Your task to perform on an android device: star an email in the gmail app Image 0: 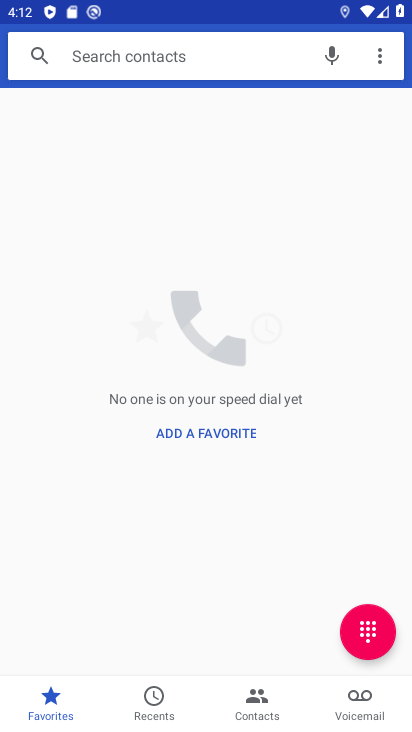
Step 0: press home button
Your task to perform on an android device: star an email in the gmail app Image 1: 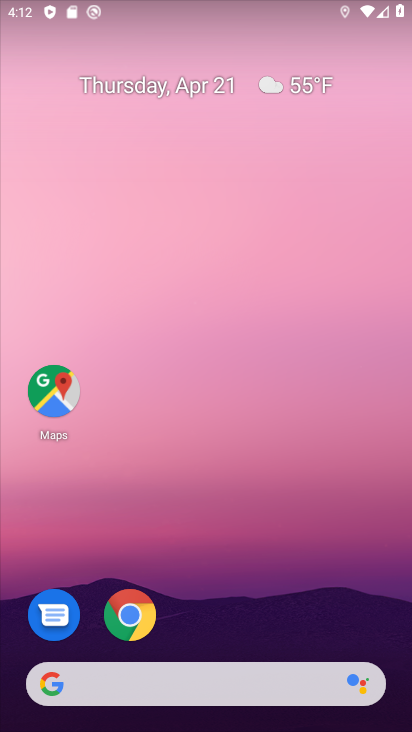
Step 1: drag from (212, 640) to (219, 192)
Your task to perform on an android device: star an email in the gmail app Image 2: 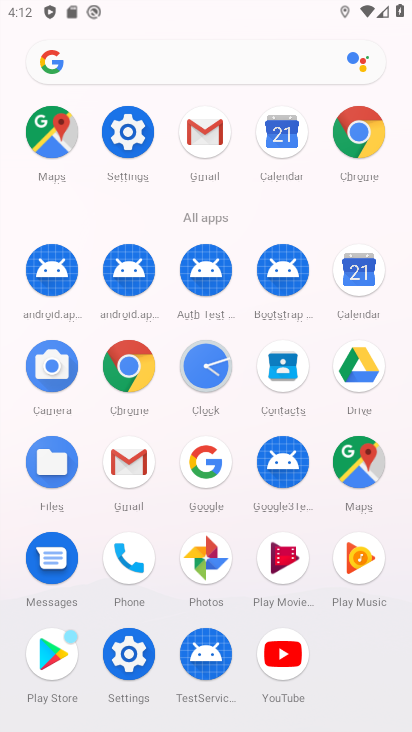
Step 2: click (135, 468)
Your task to perform on an android device: star an email in the gmail app Image 3: 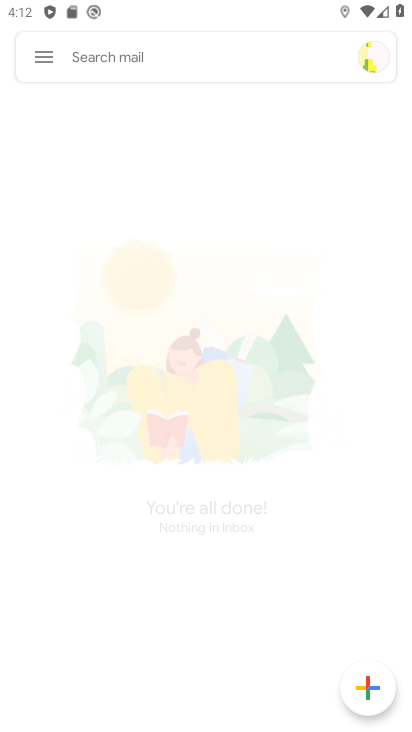
Step 3: click (32, 60)
Your task to perform on an android device: star an email in the gmail app Image 4: 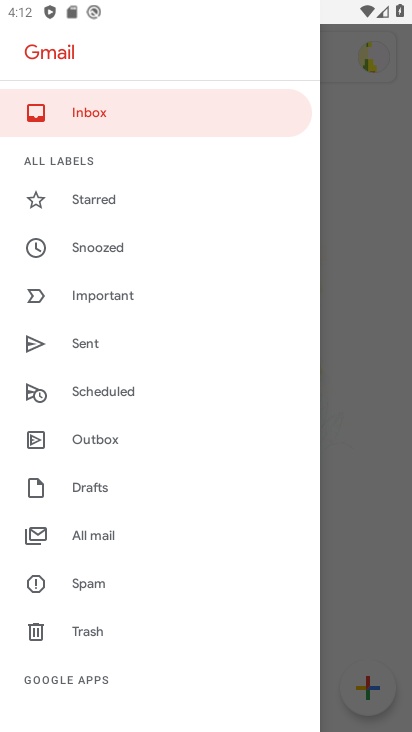
Step 4: drag from (134, 641) to (180, 294)
Your task to perform on an android device: star an email in the gmail app Image 5: 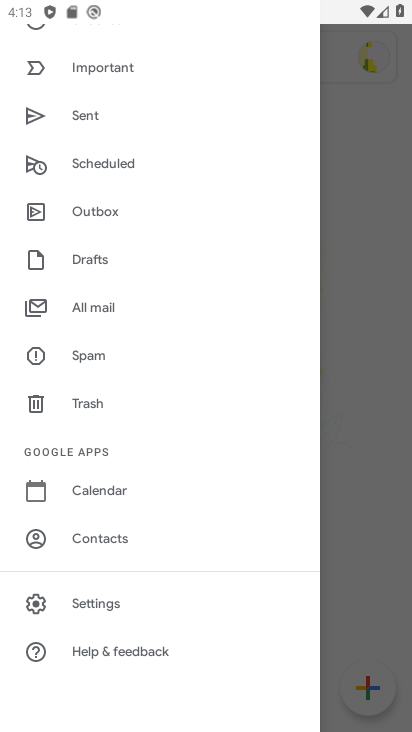
Step 5: click (105, 304)
Your task to perform on an android device: star an email in the gmail app Image 6: 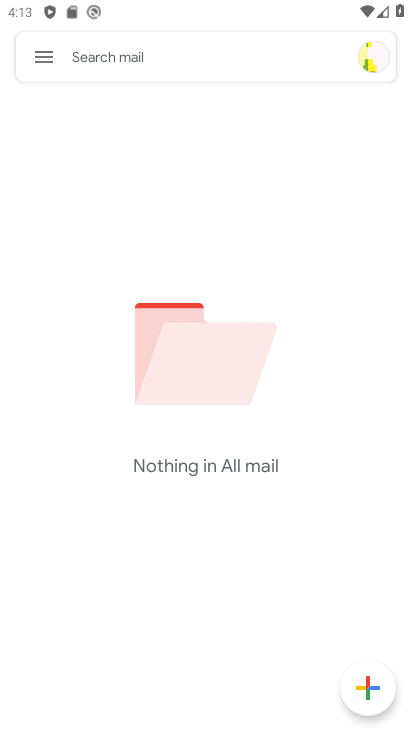
Step 6: task complete